Your task to perform on an android device: change text size in settings app Image 0: 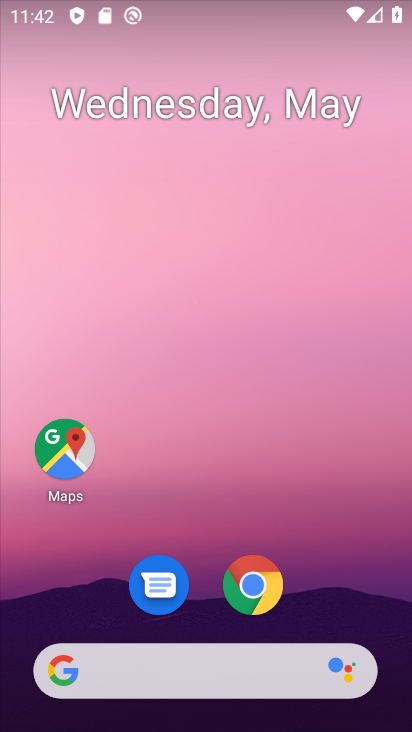
Step 0: drag from (199, 469) to (221, 109)
Your task to perform on an android device: change text size in settings app Image 1: 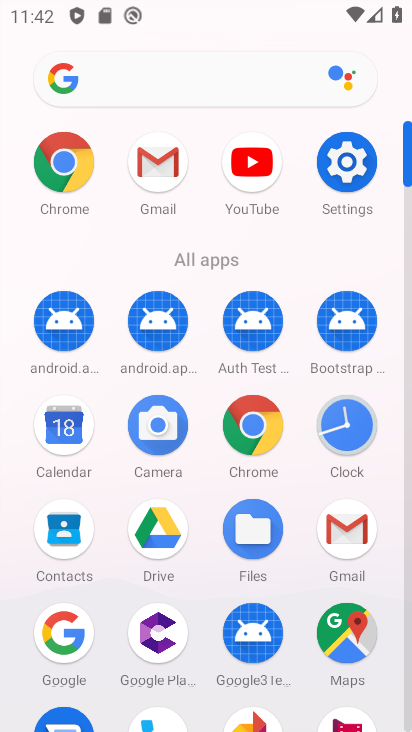
Step 1: click (341, 167)
Your task to perform on an android device: change text size in settings app Image 2: 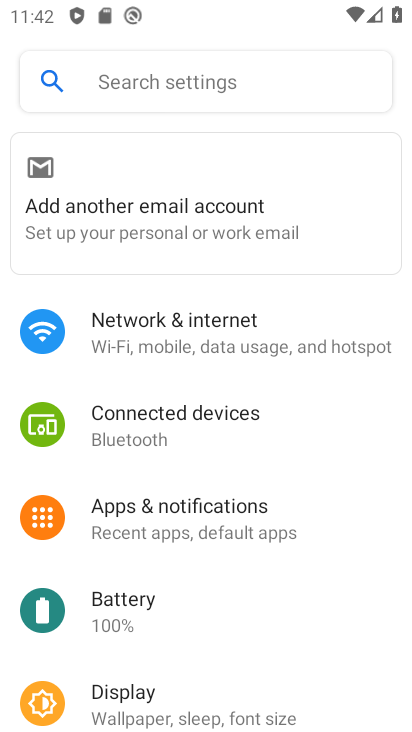
Step 2: drag from (254, 605) to (248, 336)
Your task to perform on an android device: change text size in settings app Image 3: 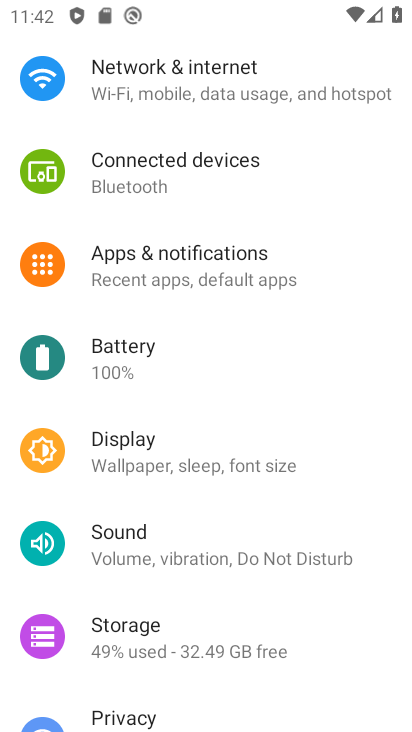
Step 3: click (222, 456)
Your task to perform on an android device: change text size in settings app Image 4: 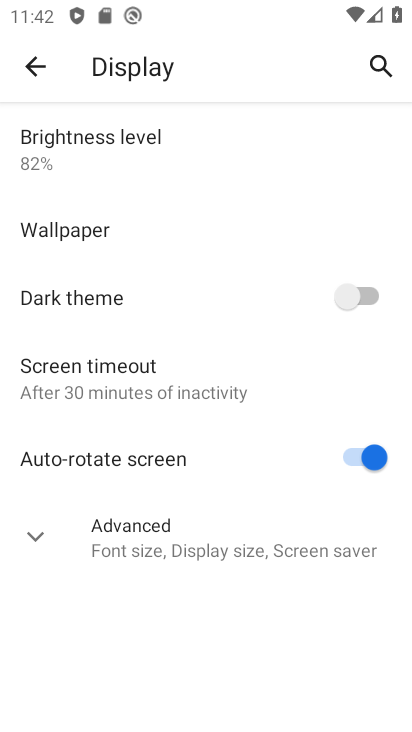
Step 4: click (33, 531)
Your task to perform on an android device: change text size in settings app Image 5: 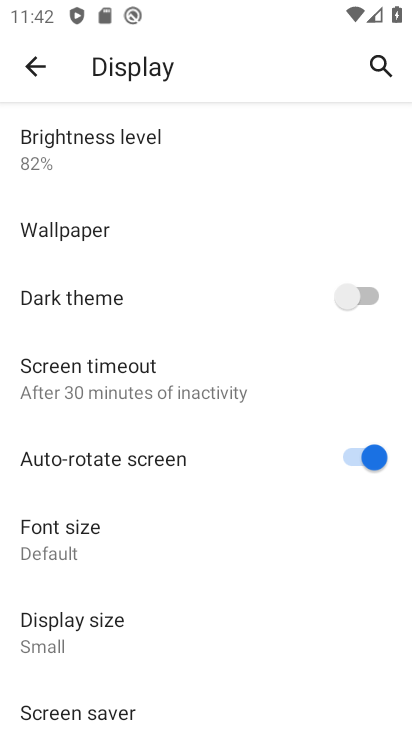
Step 5: click (96, 531)
Your task to perform on an android device: change text size in settings app Image 6: 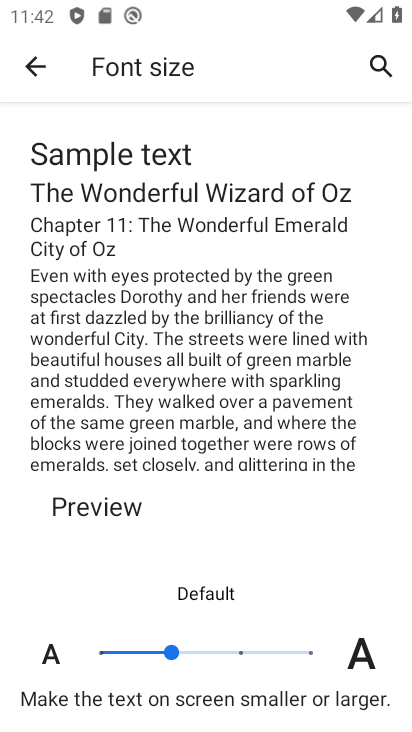
Step 6: click (237, 647)
Your task to perform on an android device: change text size in settings app Image 7: 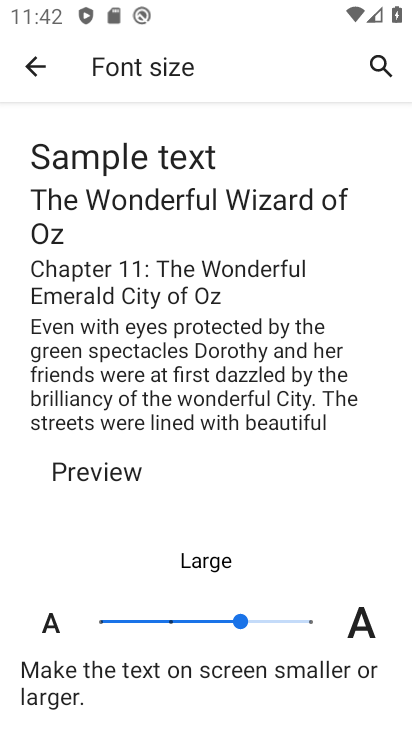
Step 7: click (35, 65)
Your task to perform on an android device: change text size in settings app Image 8: 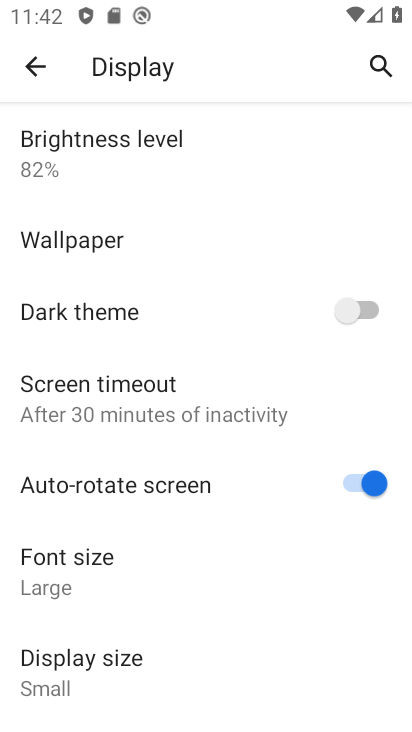
Step 8: task complete